Your task to perform on an android device: Open Google Chrome Image 0: 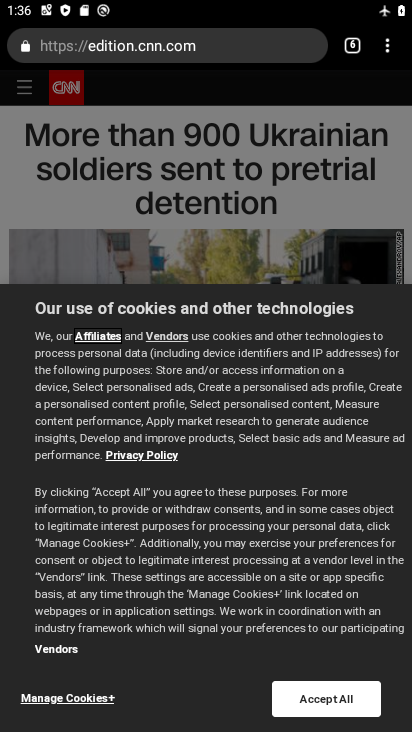
Step 0: press home button
Your task to perform on an android device: Open Google Chrome Image 1: 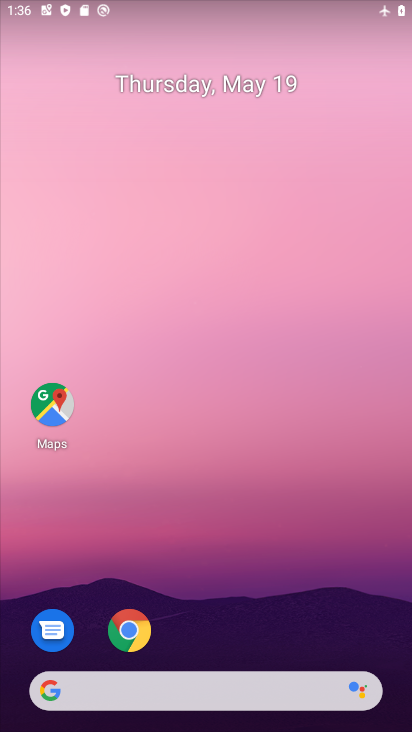
Step 1: click (124, 633)
Your task to perform on an android device: Open Google Chrome Image 2: 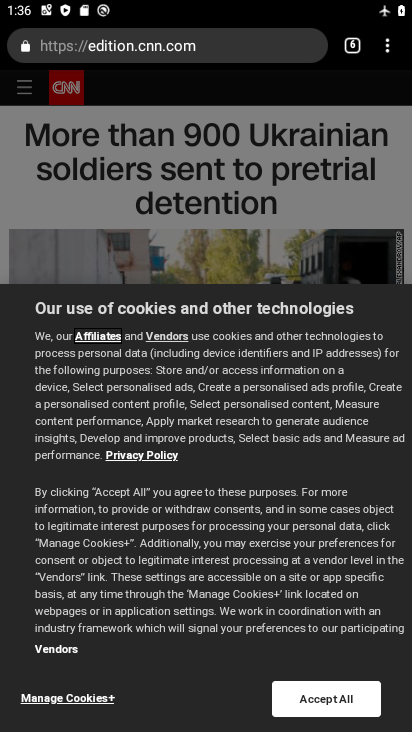
Step 2: task complete